Your task to perform on an android device: read, delete, or share a saved page in the chrome app Image 0: 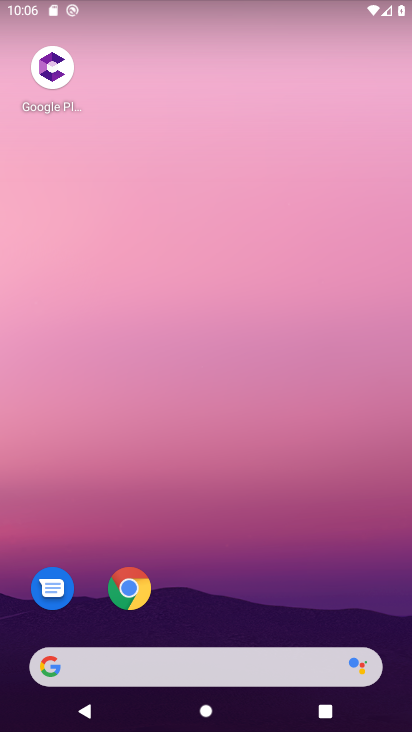
Step 0: press home button
Your task to perform on an android device: read, delete, or share a saved page in the chrome app Image 1: 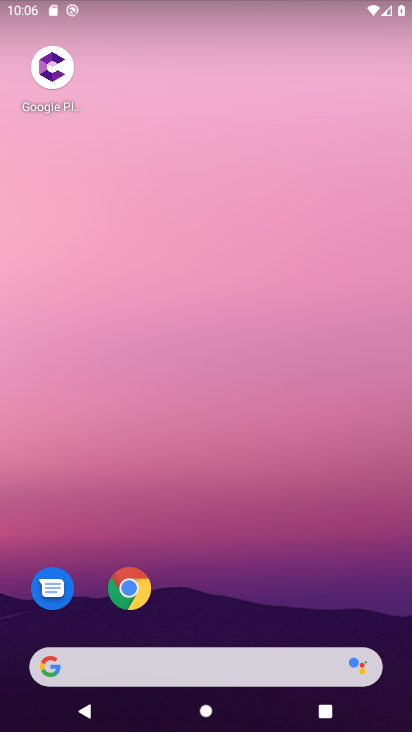
Step 1: drag from (228, 591) to (285, 1)
Your task to perform on an android device: read, delete, or share a saved page in the chrome app Image 2: 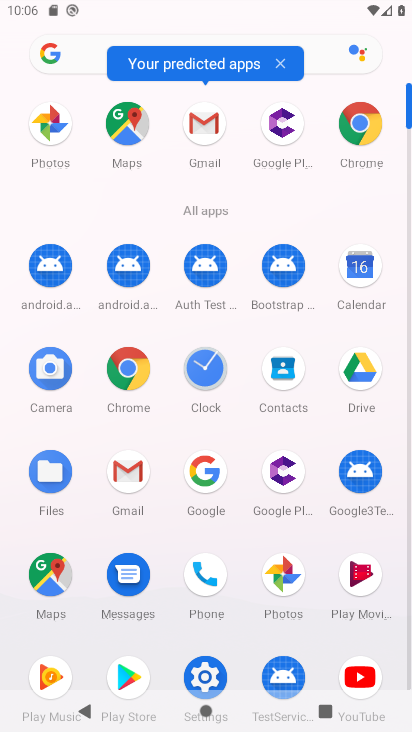
Step 2: click (201, 361)
Your task to perform on an android device: read, delete, or share a saved page in the chrome app Image 3: 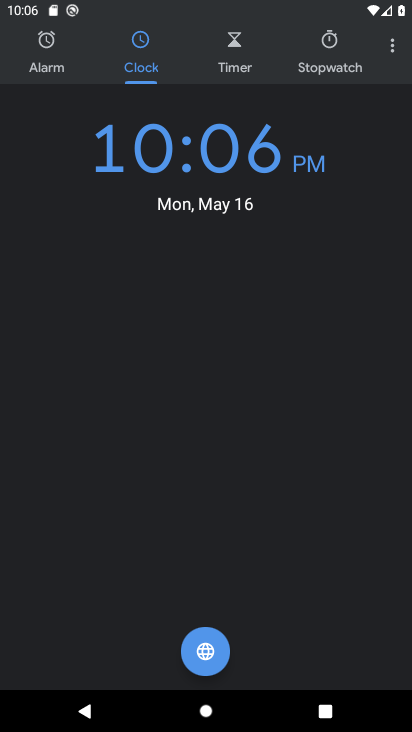
Step 3: press home button
Your task to perform on an android device: read, delete, or share a saved page in the chrome app Image 4: 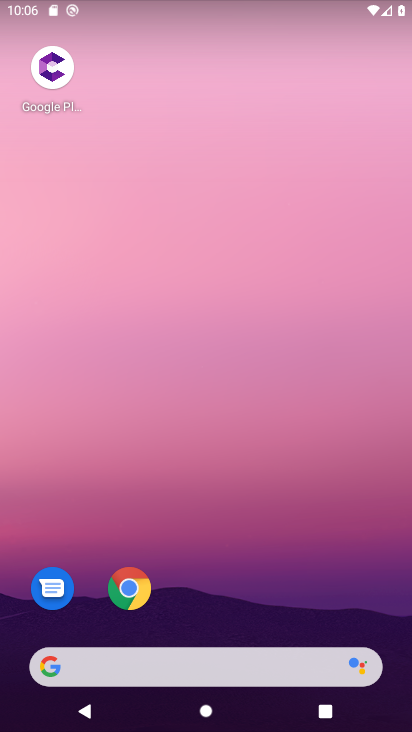
Step 4: click (127, 579)
Your task to perform on an android device: read, delete, or share a saved page in the chrome app Image 5: 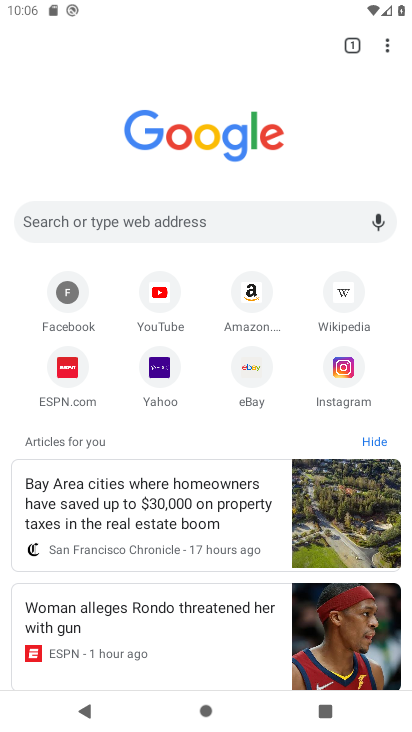
Step 5: click (383, 46)
Your task to perform on an android device: read, delete, or share a saved page in the chrome app Image 6: 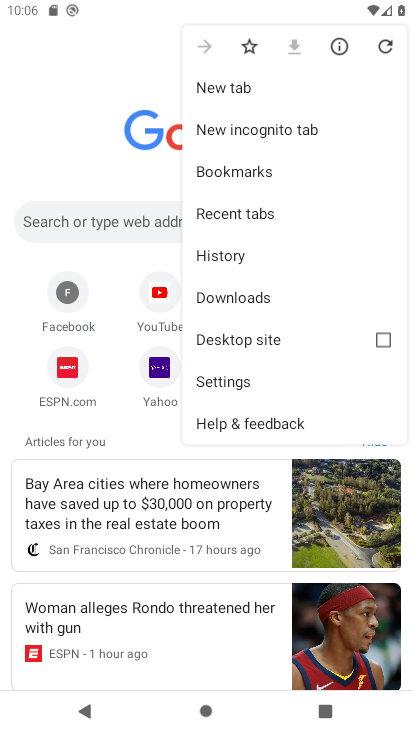
Step 6: click (276, 295)
Your task to perform on an android device: read, delete, or share a saved page in the chrome app Image 7: 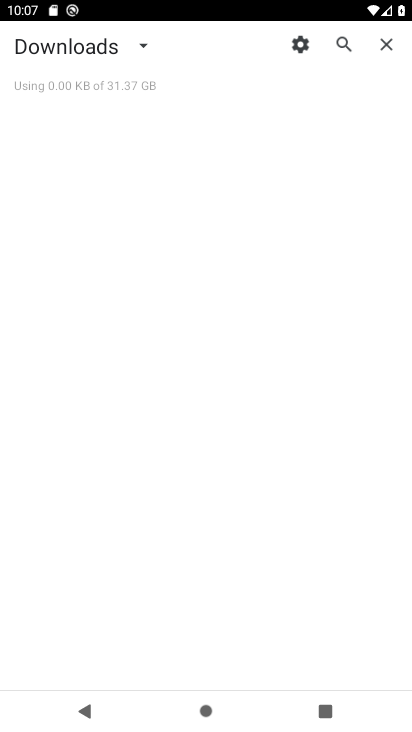
Step 7: task complete